Your task to perform on an android device: Open Wikipedia Image 0: 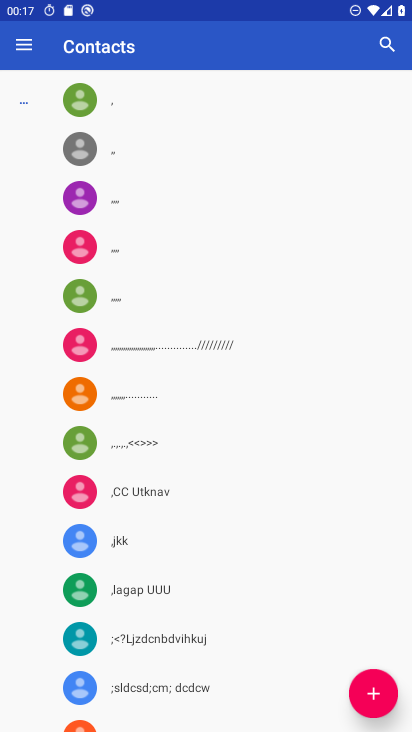
Step 0: press home button
Your task to perform on an android device: Open Wikipedia Image 1: 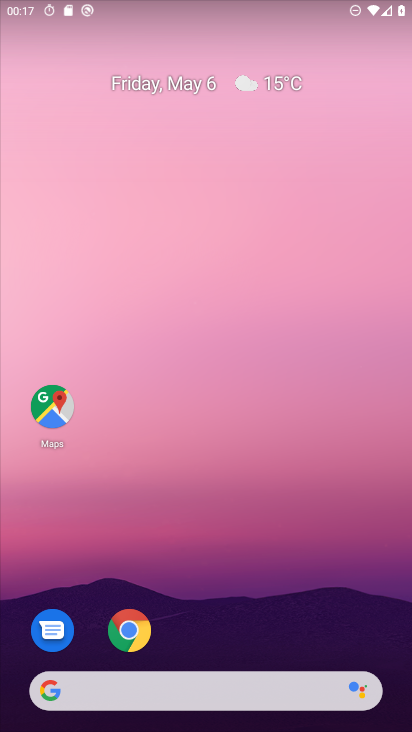
Step 1: click (135, 630)
Your task to perform on an android device: Open Wikipedia Image 2: 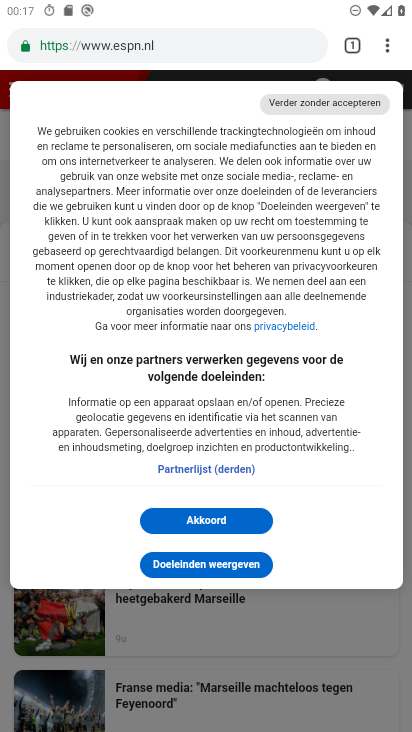
Step 2: click (196, 39)
Your task to perform on an android device: Open Wikipedia Image 3: 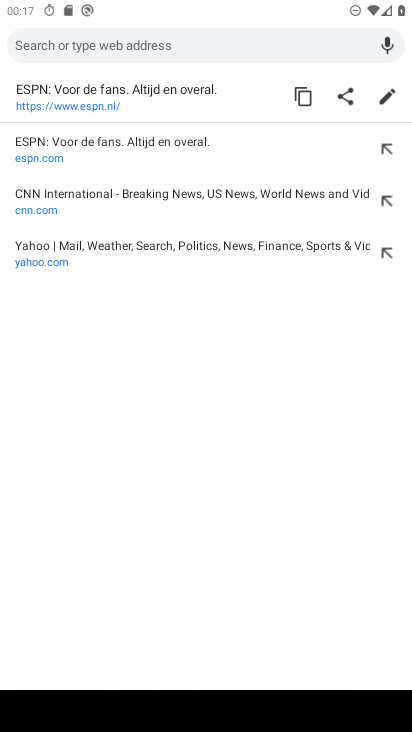
Step 3: type "wikipedia"
Your task to perform on an android device: Open Wikipedia Image 4: 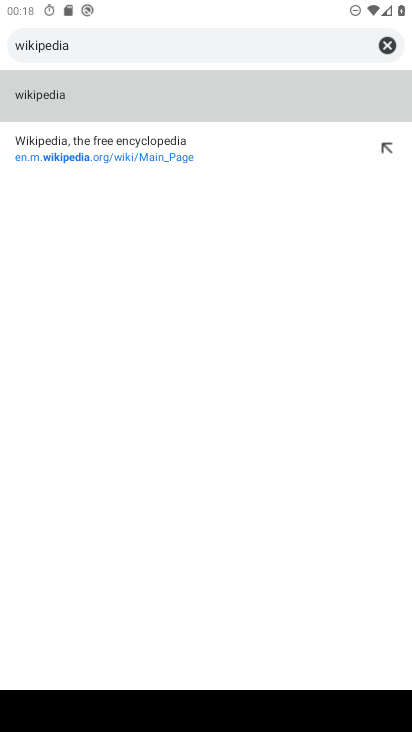
Step 4: click (31, 102)
Your task to perform on an android device: Open Wikipedia Image 5: 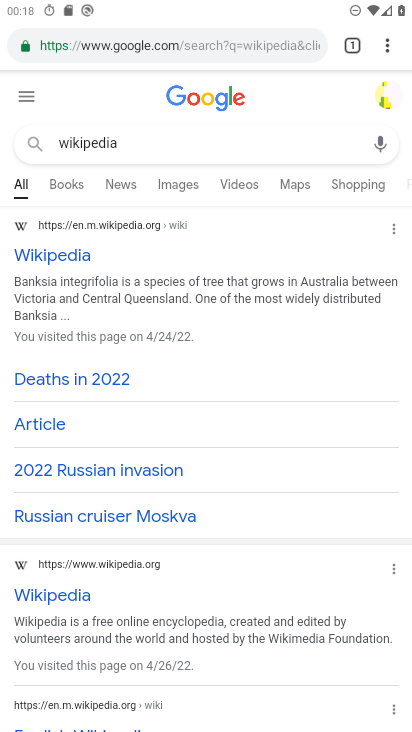
Step 5: click (69, 264)
Your task to perform on an android device: Open Wikipedia Image 6: 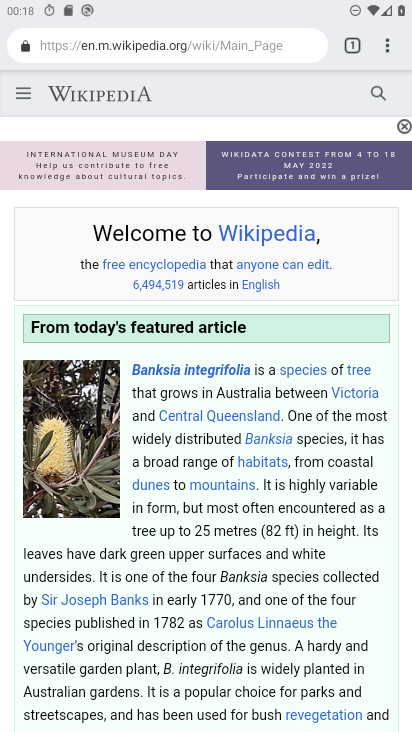
Step 6: task complete